Your task to perform on an android device: delete browsing data in the chrome app Image 0: 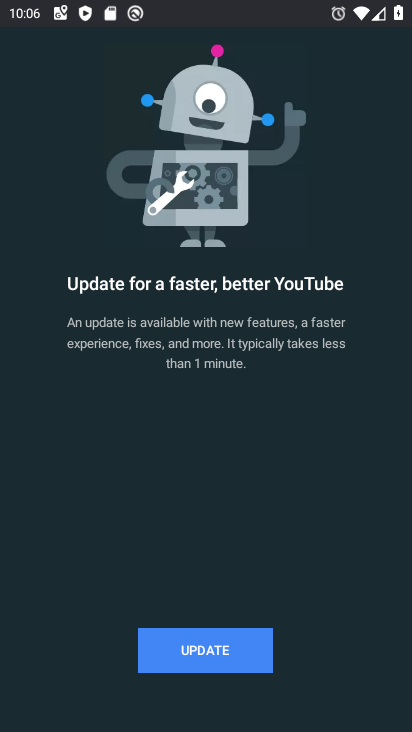
Step 0: press back button
Your task to perform on an android device: delete browsing data in the chrome app Image 1: 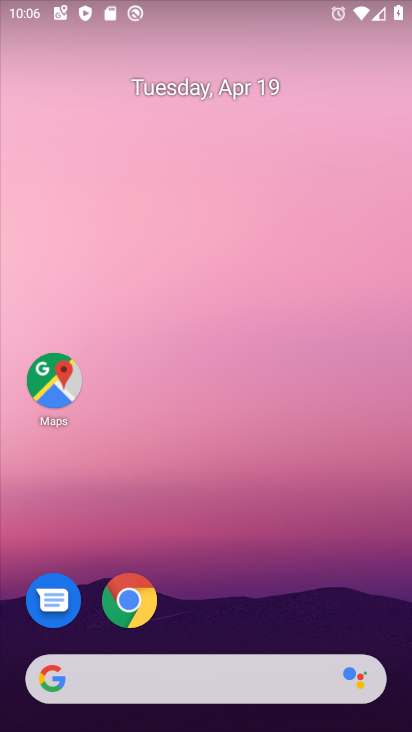
Step 1: drag from (280, 588) to (228, 151)
Your task to perform on an android device: delete browsing data in the chrome app Image 2: 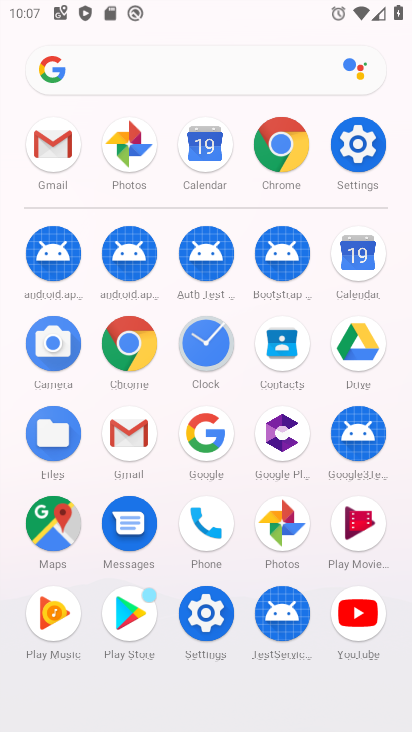
Step 2: click (133, 339)
Your task to perform on an android device: delete browsing data in the chrome app Image 3: 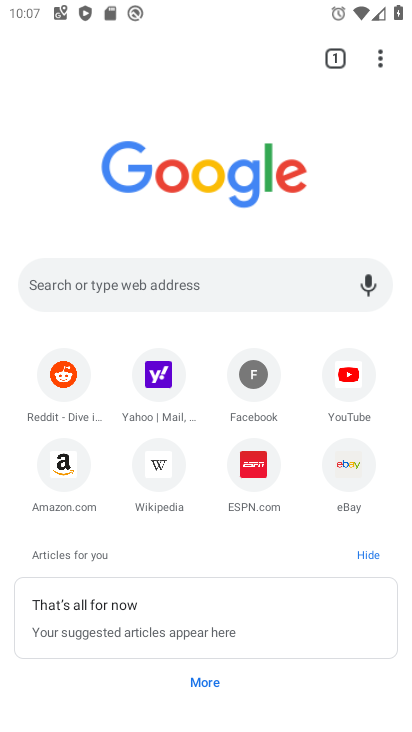
Step 3: click (383, 54)
Your task to perform on an android device: delete browsing data in the chrome app Image 4: 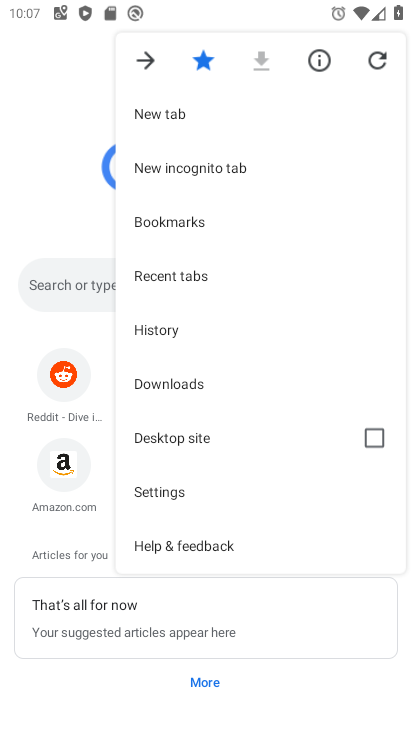
Step 4: click (189, 338)
Your task to perform on an android device: delete browsing data in the chrome app Image 5: 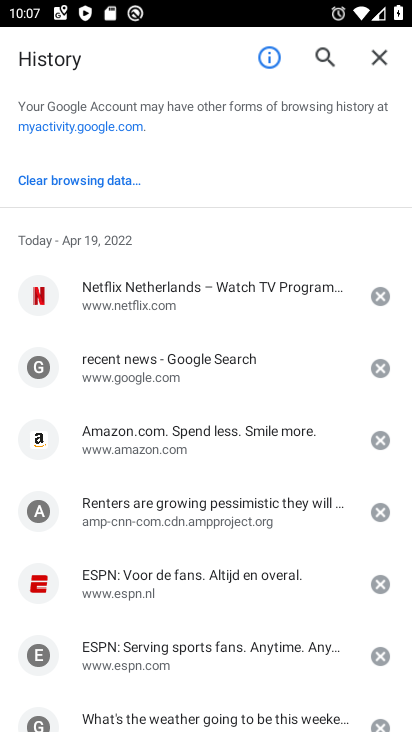
Step 5: click (82, 178)
Your task to perform on an android device: delete browsing data in the chrome app Image 6: 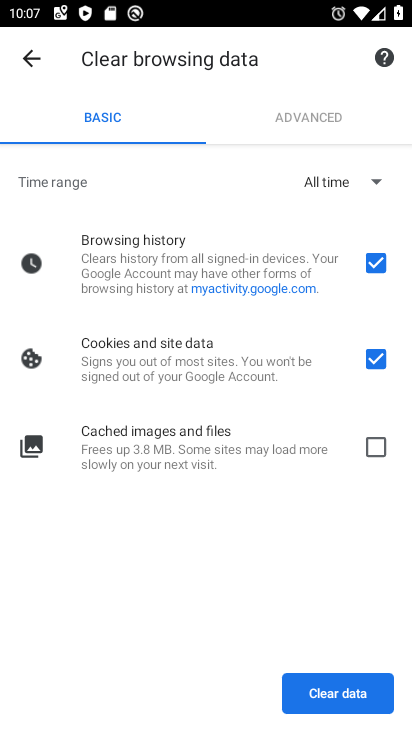
Step 6: click (355, 688)
Your task to perform on an android device: delete browsing data in the chrome app Image 7: 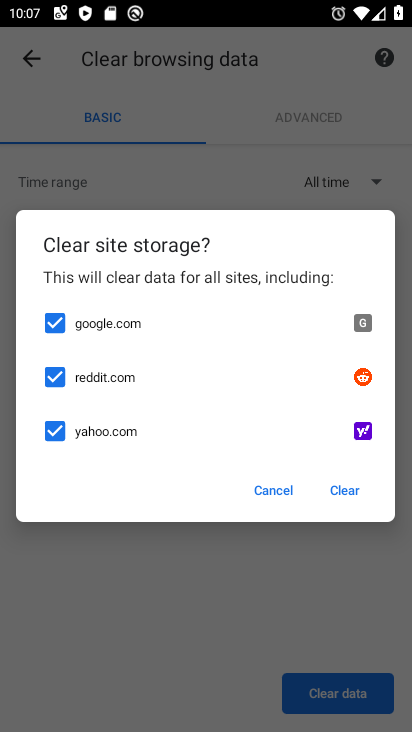
Step 7: click (338, 489)
Your task to perform on an android device: delete browsing data in the chrome app Image 8: 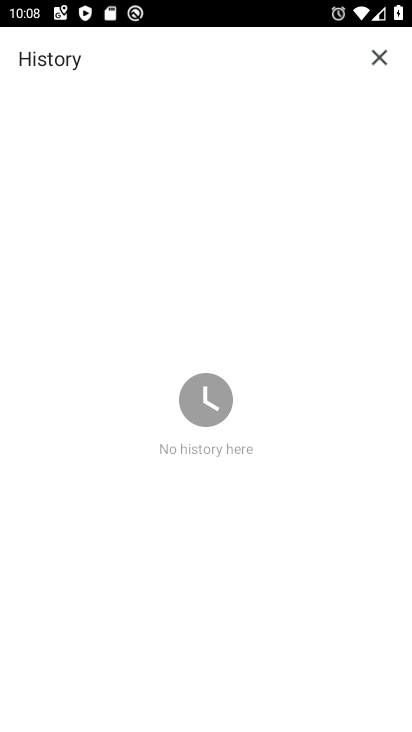
Step 8: task complete